Your task to perform on an android device: Do I have any events today? Image 0: 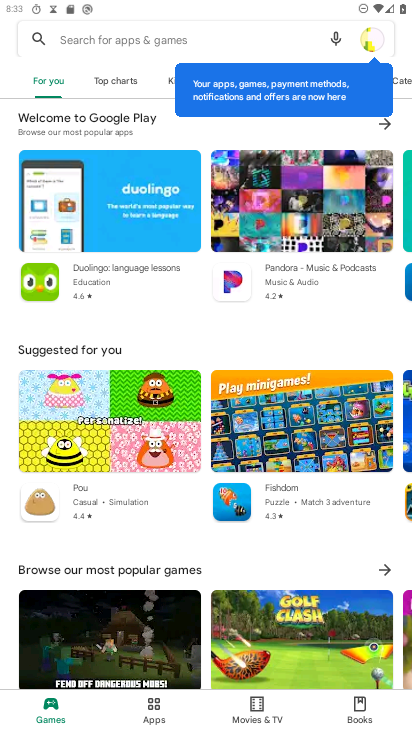
Step 0: press home button
Your task to perform on an android device: Do I have any events today? Image 1: 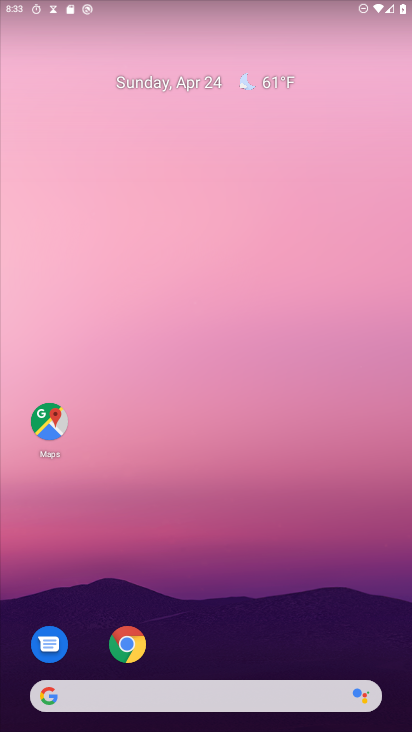
Step 1: drag from (209, 690) to (211, 175)
Your task to perform on an android device: Do I have any events today? Image 2: 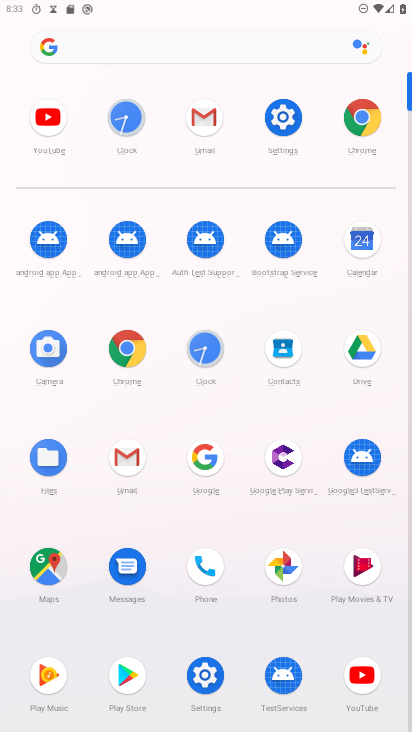
Step 2: click (363, 240)
Your task to perform on an android device: Do I have any events today? Image 3: 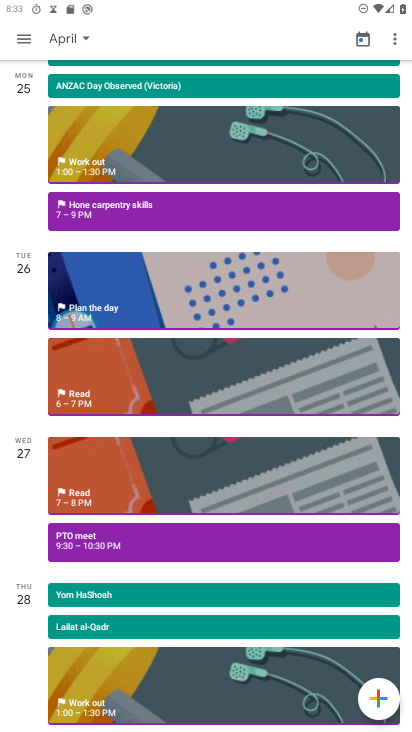
Step 3: task complete